Your task to perform on an android device: see tabs open on other devices in the chrome app Image 0: 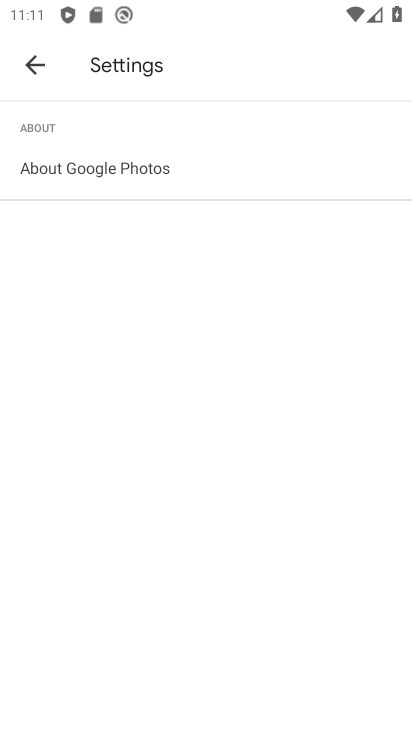
Step 0: press home button
Your task to perform on an android device: see tabs open on other devices in the chrome app Image 1: 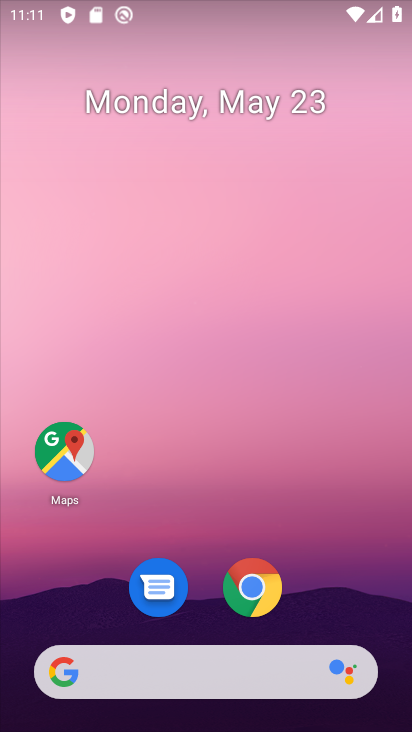
Step 1: click (267, 587)
Your task to perform on an android device: see tabs open on other devices in the chrome app Image 2: 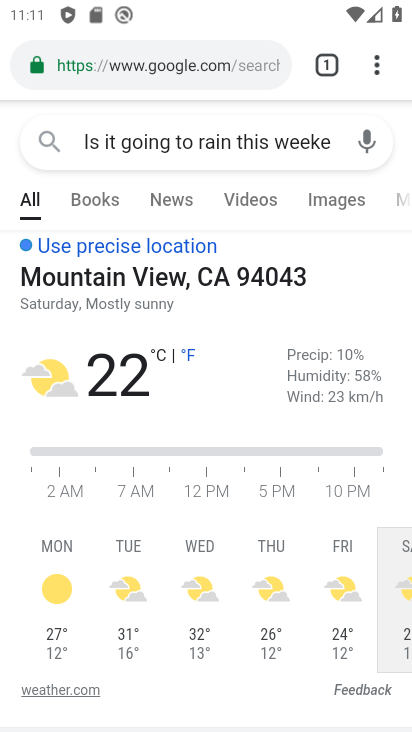
Step 2: click (388, 70)
Your task to perform on an android device: see tabs open on other devices in the chrome app Image 3: 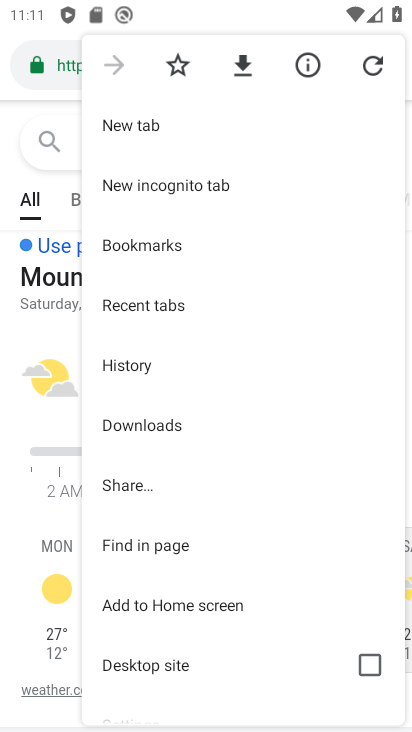
Step 3: click (215, 315)
Your task to perform on an android device: see tabs open on other devices in the chrome app Image 4: 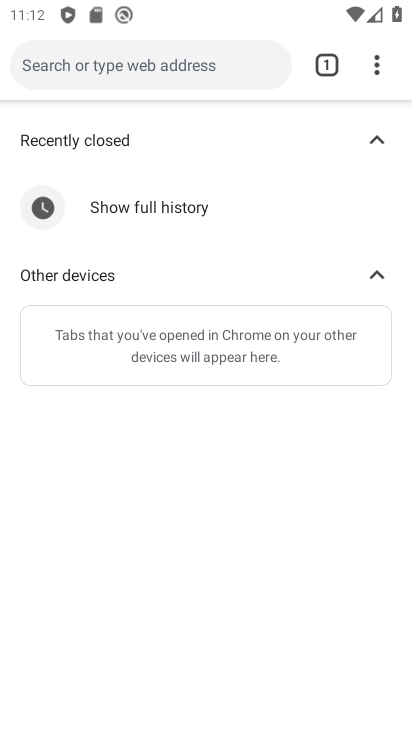
Step 4: task complete